Your task to perform on an android device: open chrome and create a bookmark for the current page Image 0: 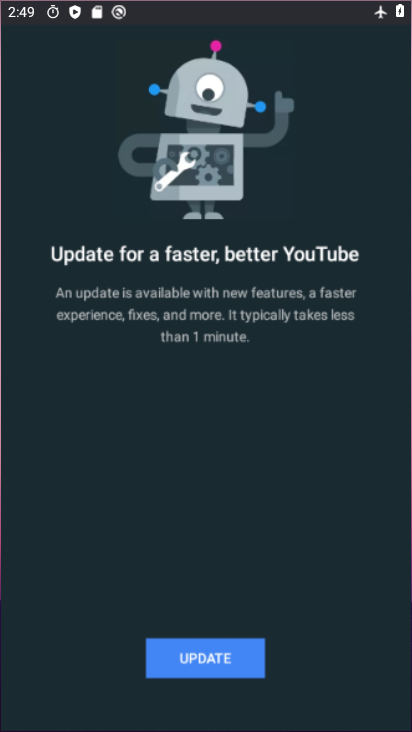
Step 0: click (50, 391)
Your task to perform on an android device: open chrome and create a bookmark for the current page Image 1: 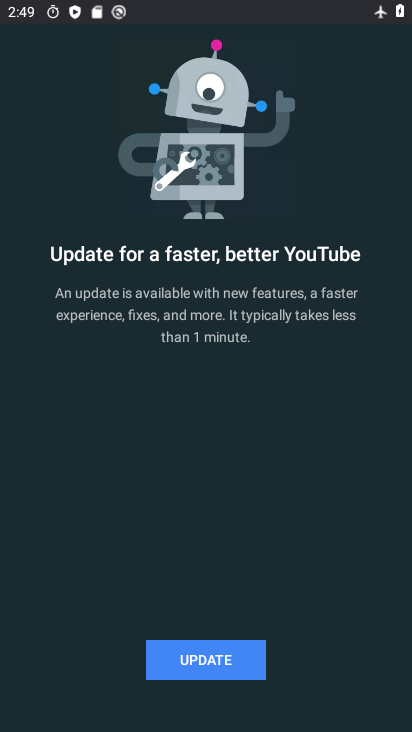
Step 1: press home button
Your task to perform on an android device: open chrome and create a bookmark for the current page Image 2: 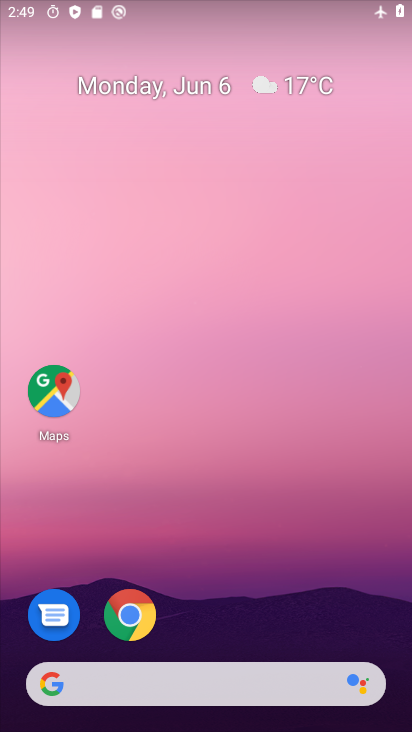
Step 2: click (138, 605)
Your task to perform on an android device: open chrome and create a bookmark for the current page Image 3: 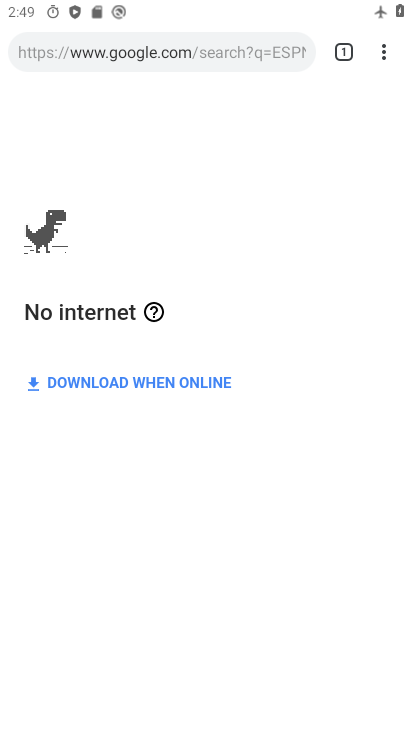
Step 3: click (380, 50)
Your task to perform on an android device: open chrome and create a bookmark for the current page Image 4: 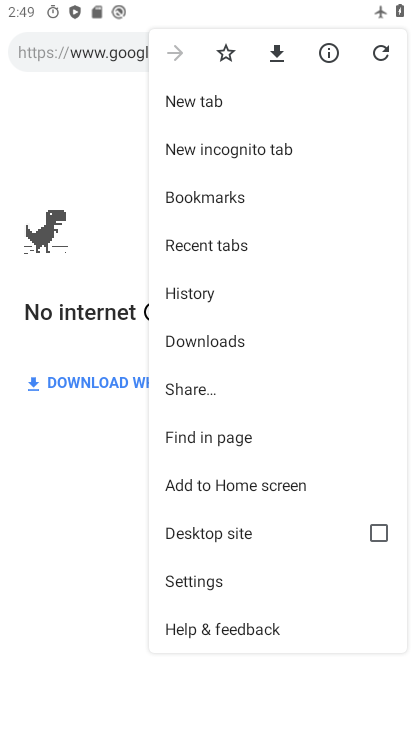
Step 4: click (220, 53)
Your task to perform on an android device: open chrome and create a bookmark for the current page Image 5: 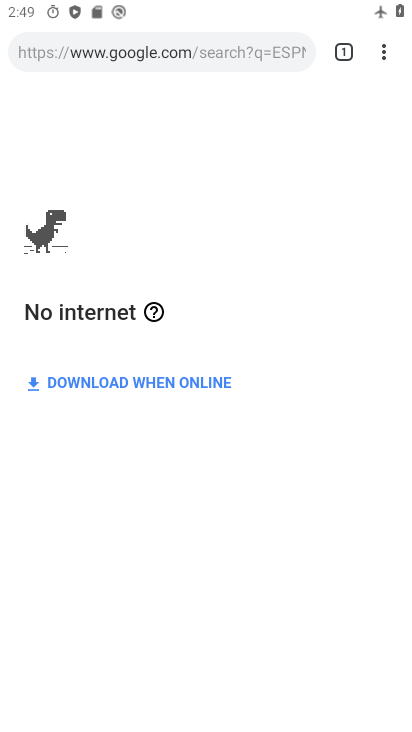
Step 5: click (136, 187)
Your task to perform on an android device: open chrome and create a bookmark for the current page Image 6: 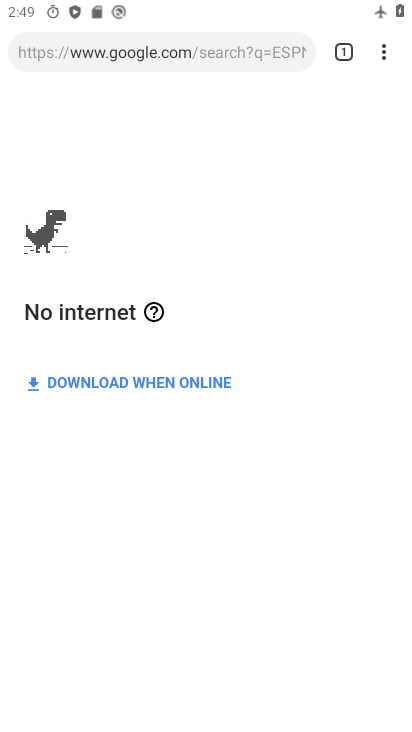
Step 6: click (382, 48)
Your task to perform on an android device: open chrome and create a bookmark for the current page Image 7: 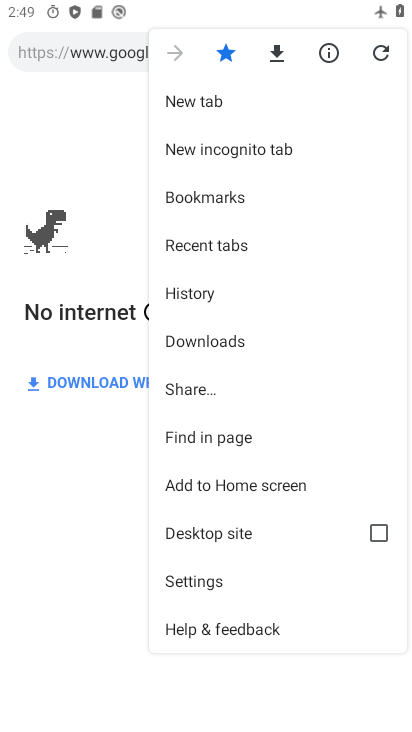
Step 7: task complete